Your task to perform on an android device: Open Android settings Image 0: 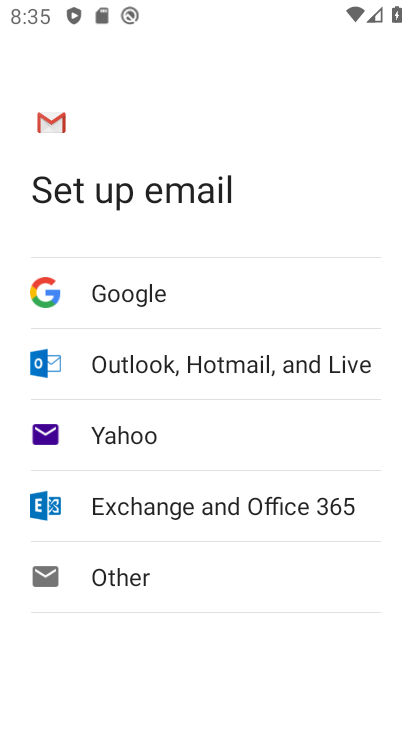
Step 0: press home button
Your task to perform on an android device: Open Android settings Image 1: 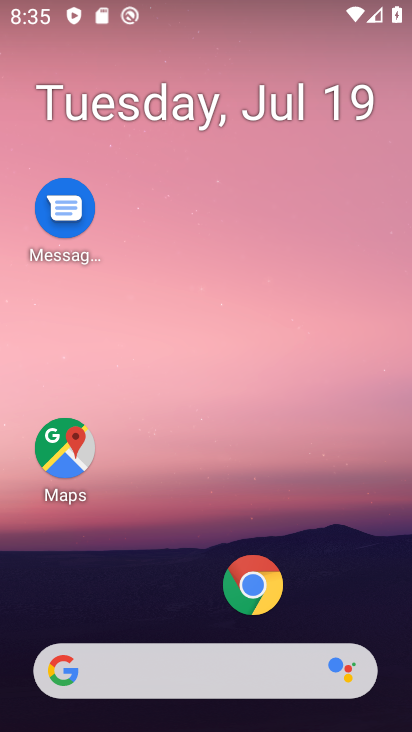
Step 1: drag from (190, 620) to (158, 55)
Your task to perform on an android device: Open Android settings Image 2: 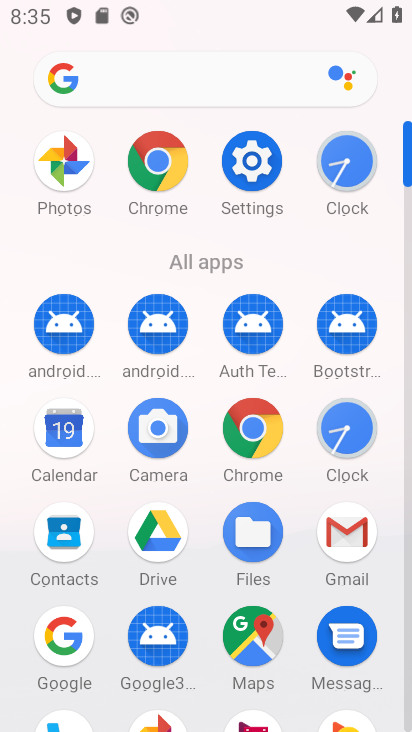
Step 2: click (245, 145)
Your task to perform on an android device: Open Android settings Image 3: 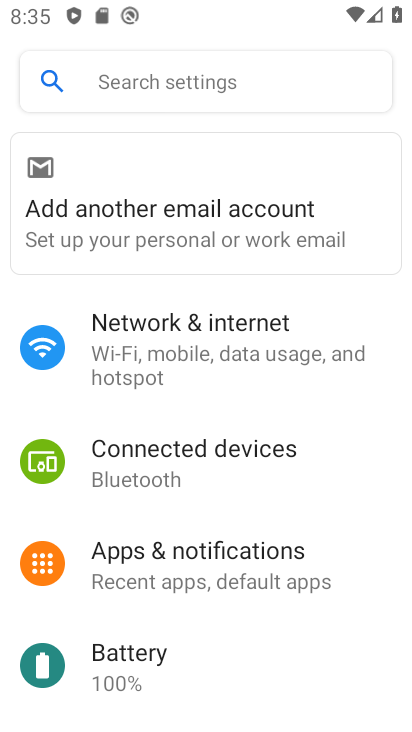
Step 3: task complete